Your task to perform on an android device: empty trash in the gmail app Image 0: 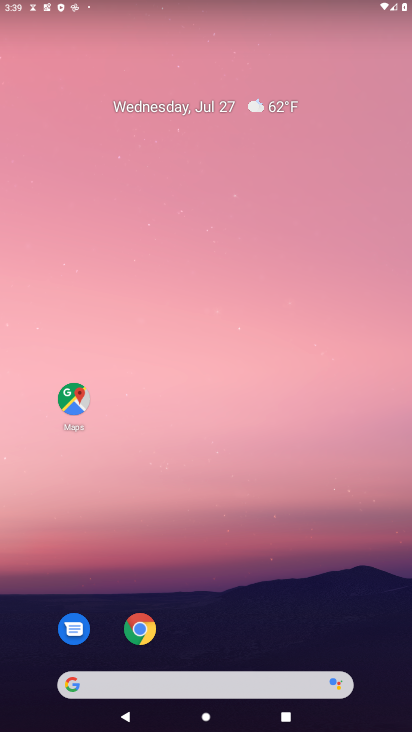
Step 0: drag from (220, 683) to (326, 18)
Your task to perform on an android device: empty trash in the gmail app Image 1: 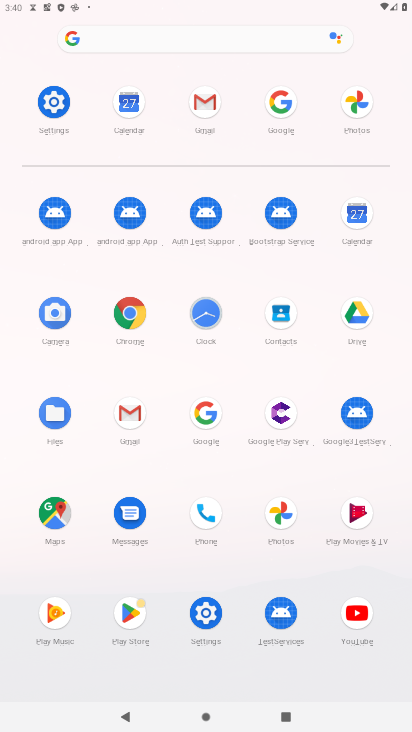
Step 1: click (205, 99)
Your task to perform on an android device: empty trash in the gmail app Image 2: 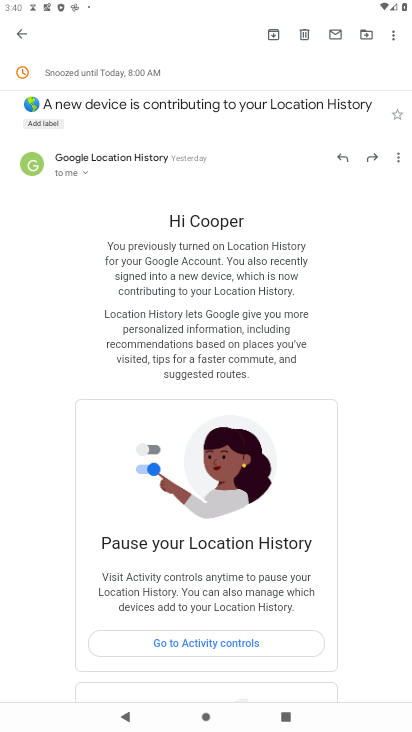
Step 2: press back button
Your task to perform on an android device: empty trash in the gmail app Image 3: 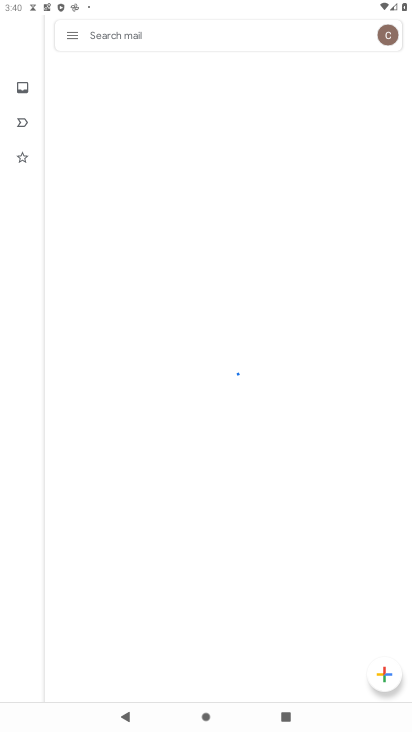
Step 3: click (72, 34)
Your task to perform on an android device: empty trash in the gmail app Image 4: 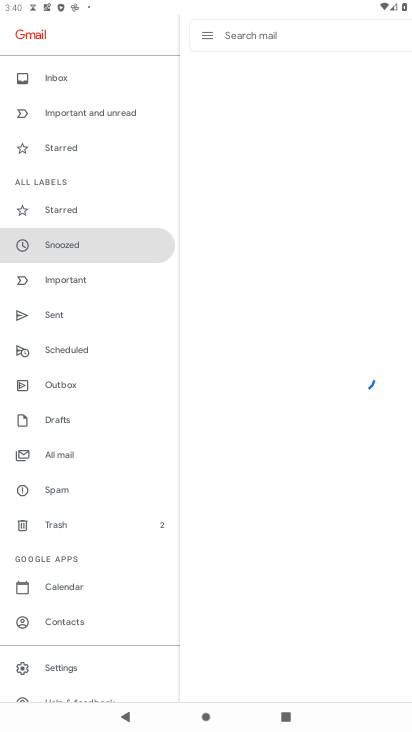
Step 4: click (64, 527)
Your task to perform on an android device: empty trash in the gmail app Image 5: 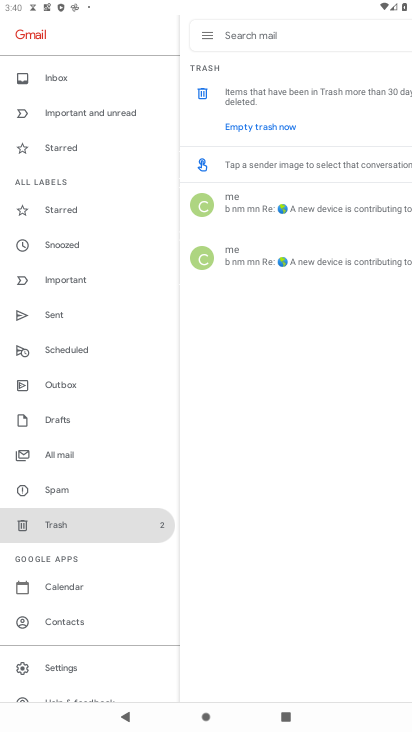
Step 5: click (280, 126)
Your task to perform on an android device: empty trash in the gmail app Image 6: 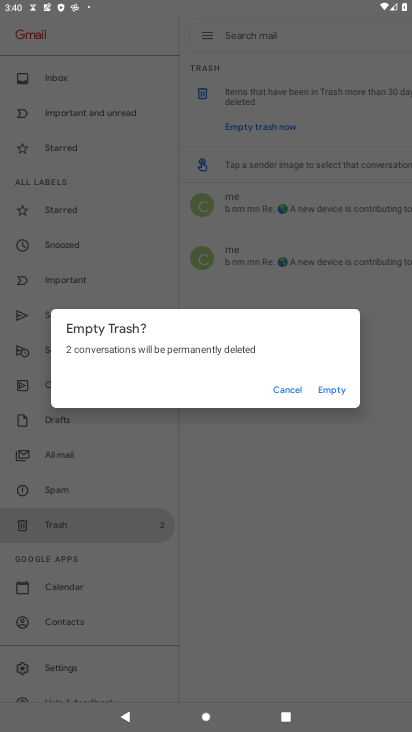
Step 6: click (331, 386)
Your task to perform on an android device: empty trash in the gmail app Image 7: 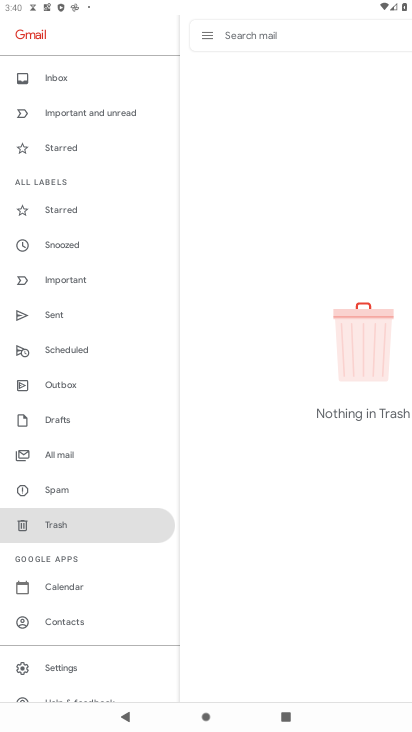
Step 7: task complete